Your task to perform on an android device: add a label to a message in the gmail app Image 0: 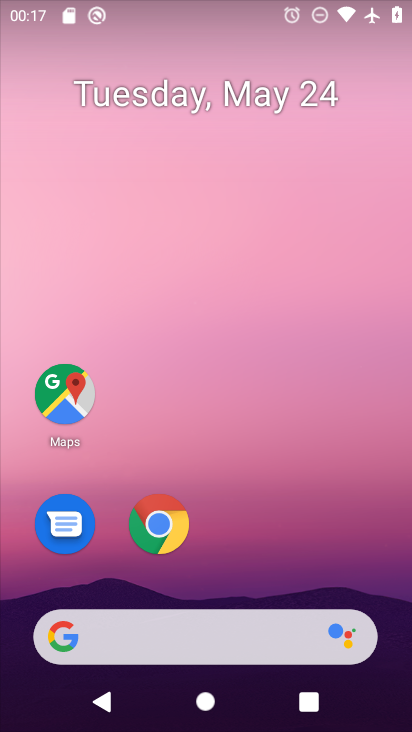
Step 0: drag from (231, 580) to (231, 278)
Your task to perform on an android device: add a label to a message in the gmail app Image 1: 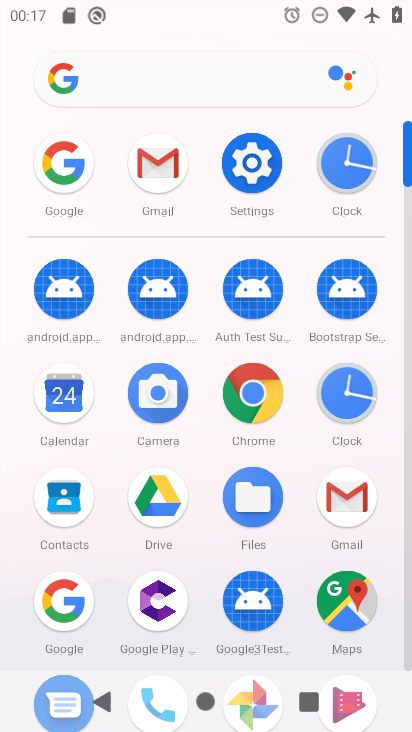
Step 1: click (171, 159)
Your task to perform on an android device: add a label to a message in the gmail app Image 2: 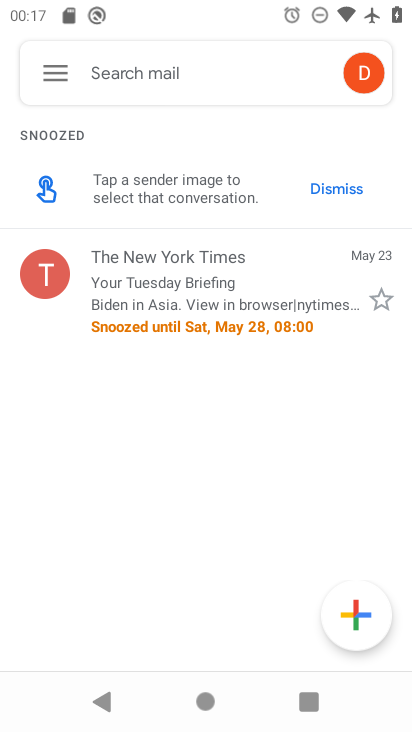
Step 2: click (163, 252)
Your task to perform on an android device: add a label to a message in the gmail app Image 3: 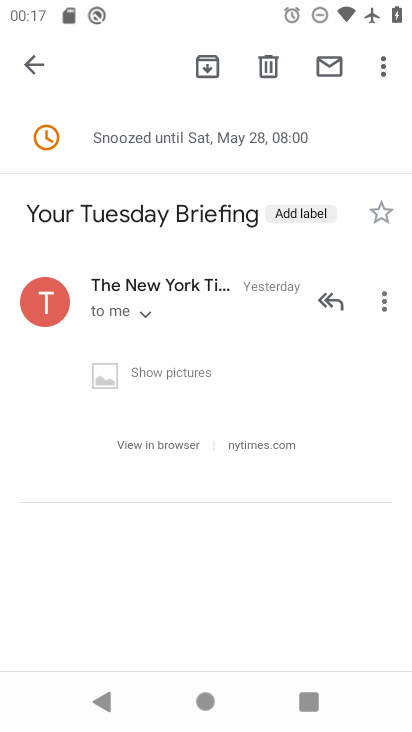
Step 3: click (389, 70)
Your task to perform on an android device: add a label to a message in the gmail app Image 4: 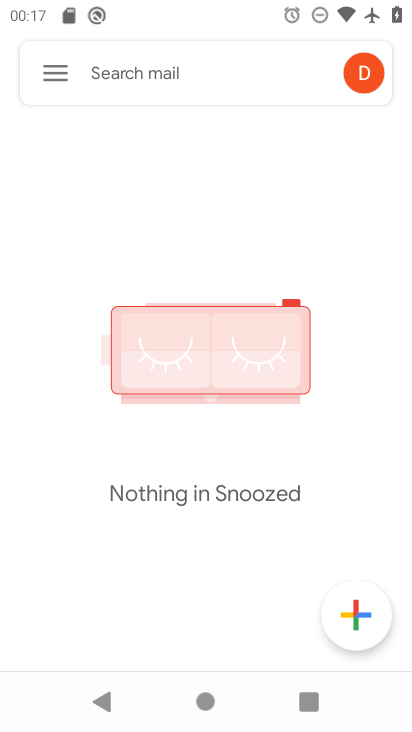
Step 4: click (21, 76)
Your task to perform on an android device: add a label to a message in the gmail app Image 5: 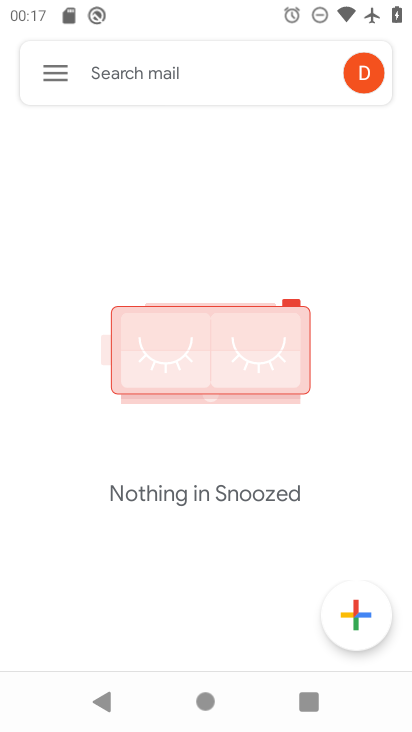
Step 5: click (59, 86)
Your task to perform on an android device: add a label to a message in the gmail app Image 6: 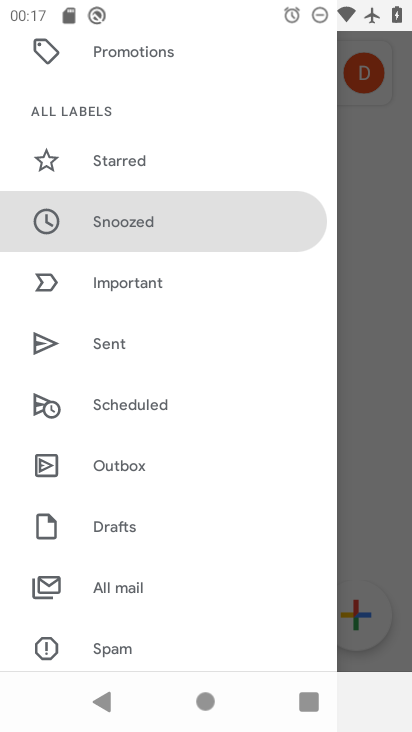
Step 6: click (140, 582)
Your task to perform on an android device: add a label to a message in the gmail app Image 7: 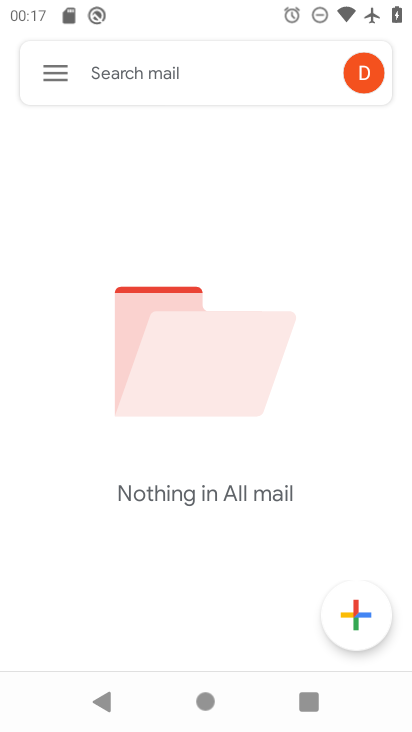
Step 7: click (57, 63)
Your task to perform on an android device: add a label to a message in the gmail app Image 8: 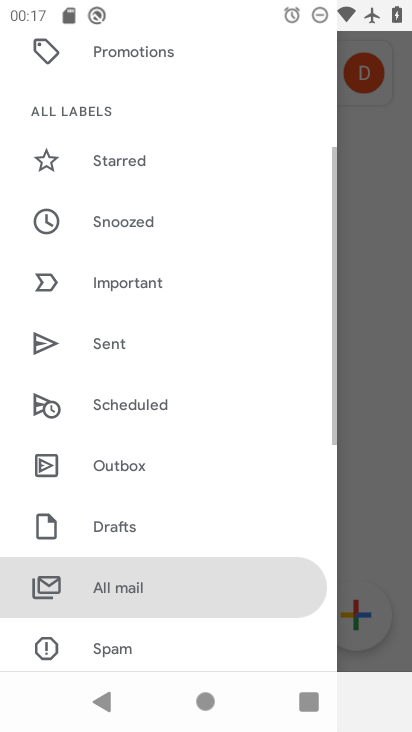
Step 8: drag from (157, 253) to (161, 479)
Your task to perform on an android device: add a label to a message in the gmail app Image 9: 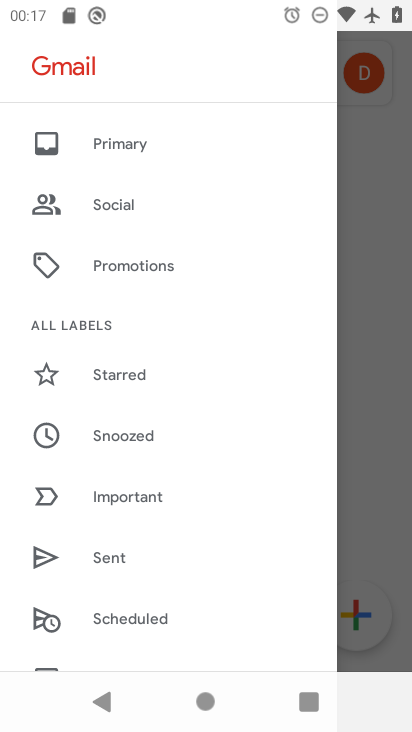
Step 9: drag from (185, 322) to (197, 282)
Your task to perform on an android device: add a label to a message in the gmail app Image 10: 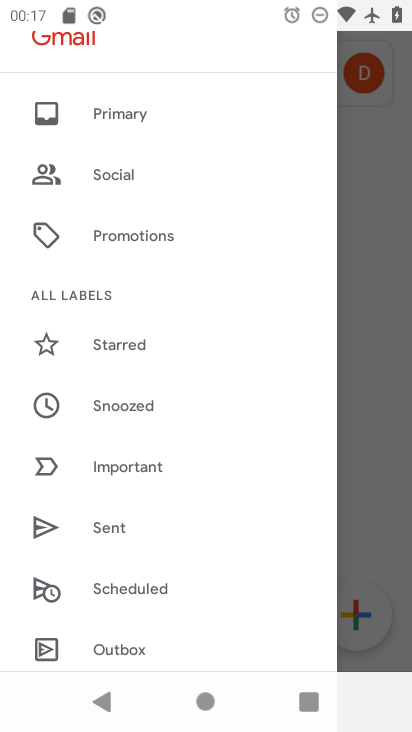
Step 10: drag from (185, 550) to (183, 348)
Your task to perform on an android device: add a label to a message in the gmail app Image 11: 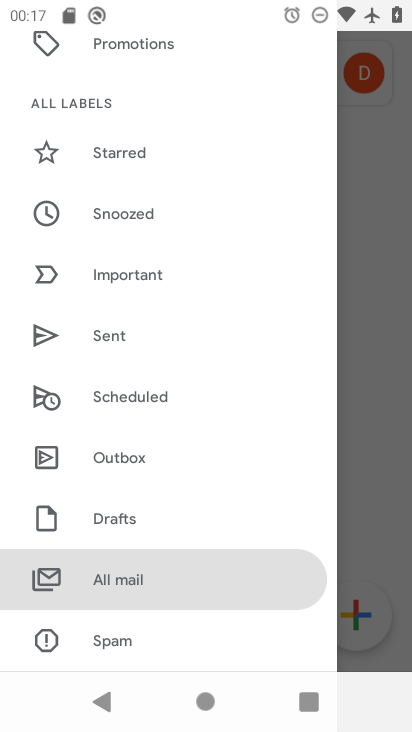
Step 11: click (172, 593)
Your task to perform on an android device: add a label to a message in the gmail app Image 12: 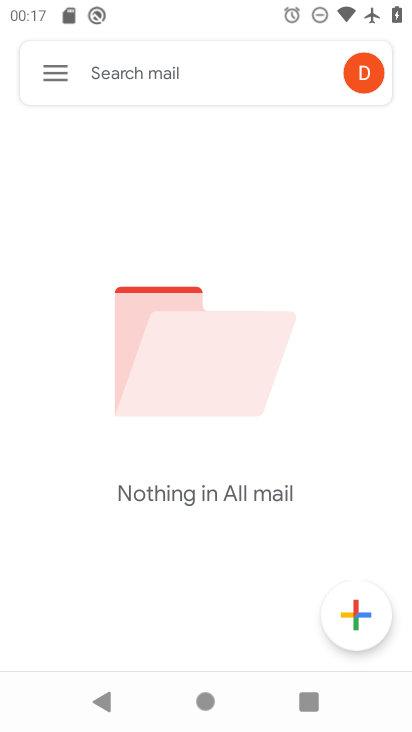
Step 12: task complete